Your task to perform on an android device: set the stopwatch Image 0: 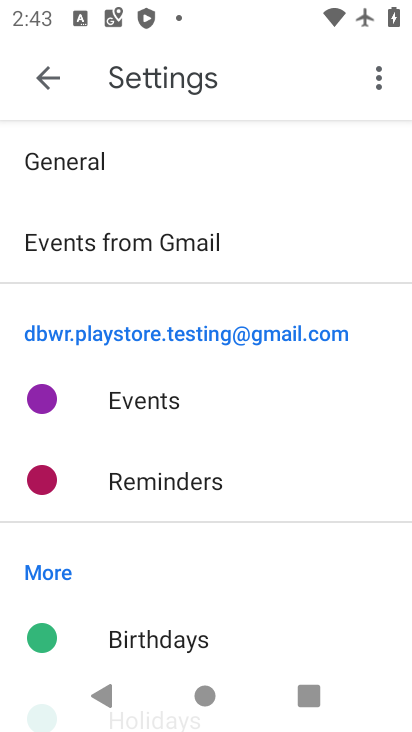
Step 0: press home button
Your task to perform on an android device: set the stopwatch Image 1: 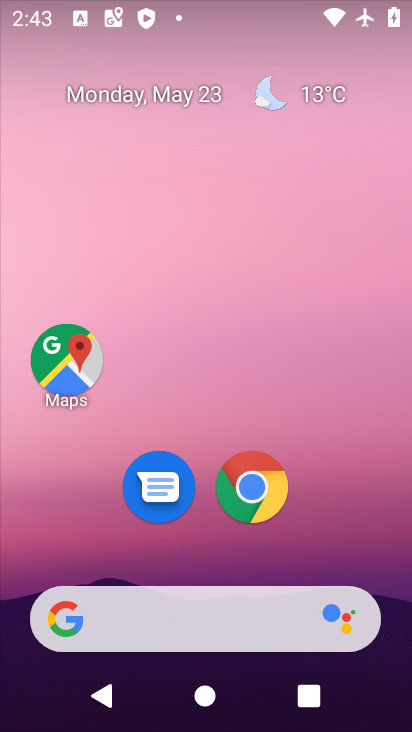
Step 1: drag from (395, 616) to (361, 58)
Your task to perform on an android device: set the stopwatch Image 2: 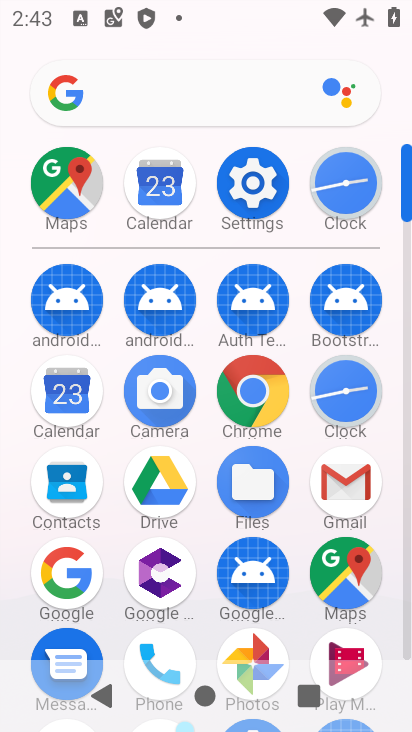
Step 2: click (407, 651)
Your task to perform on an android device: set the stopwatch Image 3: 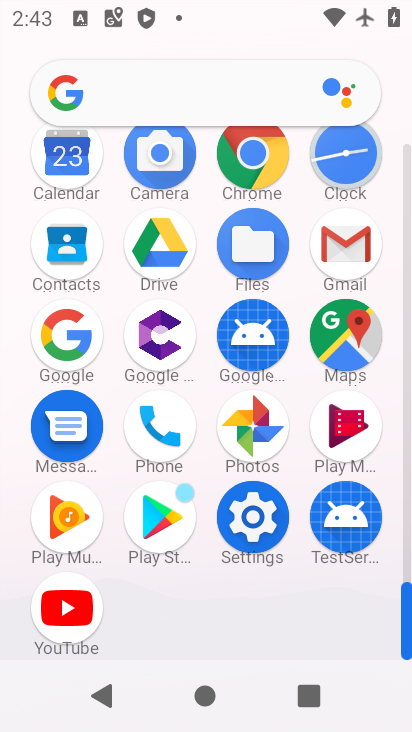
Step 3: click (346, 148)
Your task to perform on an android device: set the stopwatch Image 4: 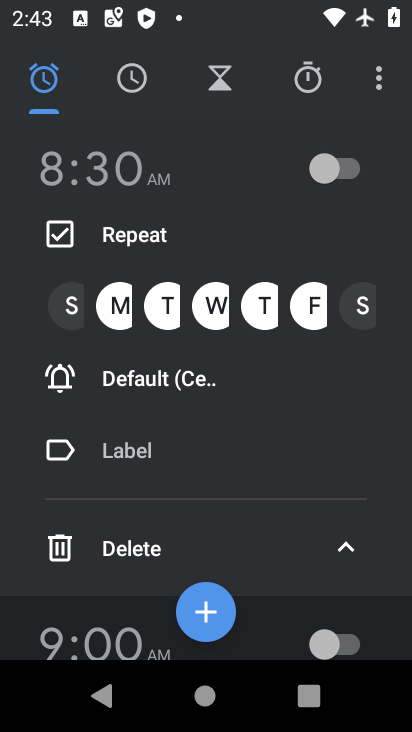
Step 4: click (305, 79)
Your task to perform on an android device: set the stopwatch Image 5: 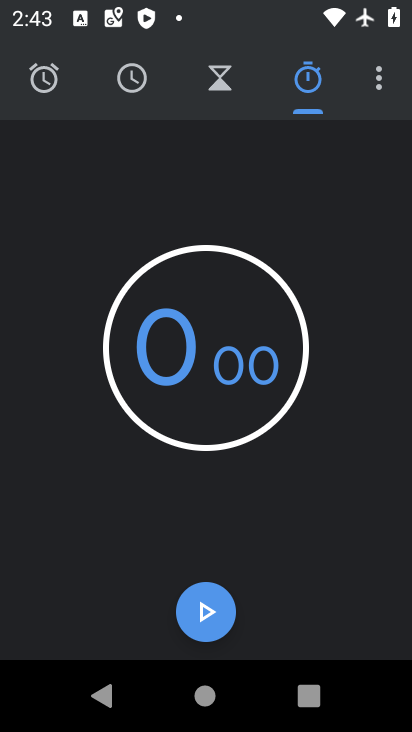
Step 5: task complete